Your task to perform on an android device: Search for 35 best books of all time Image 0: 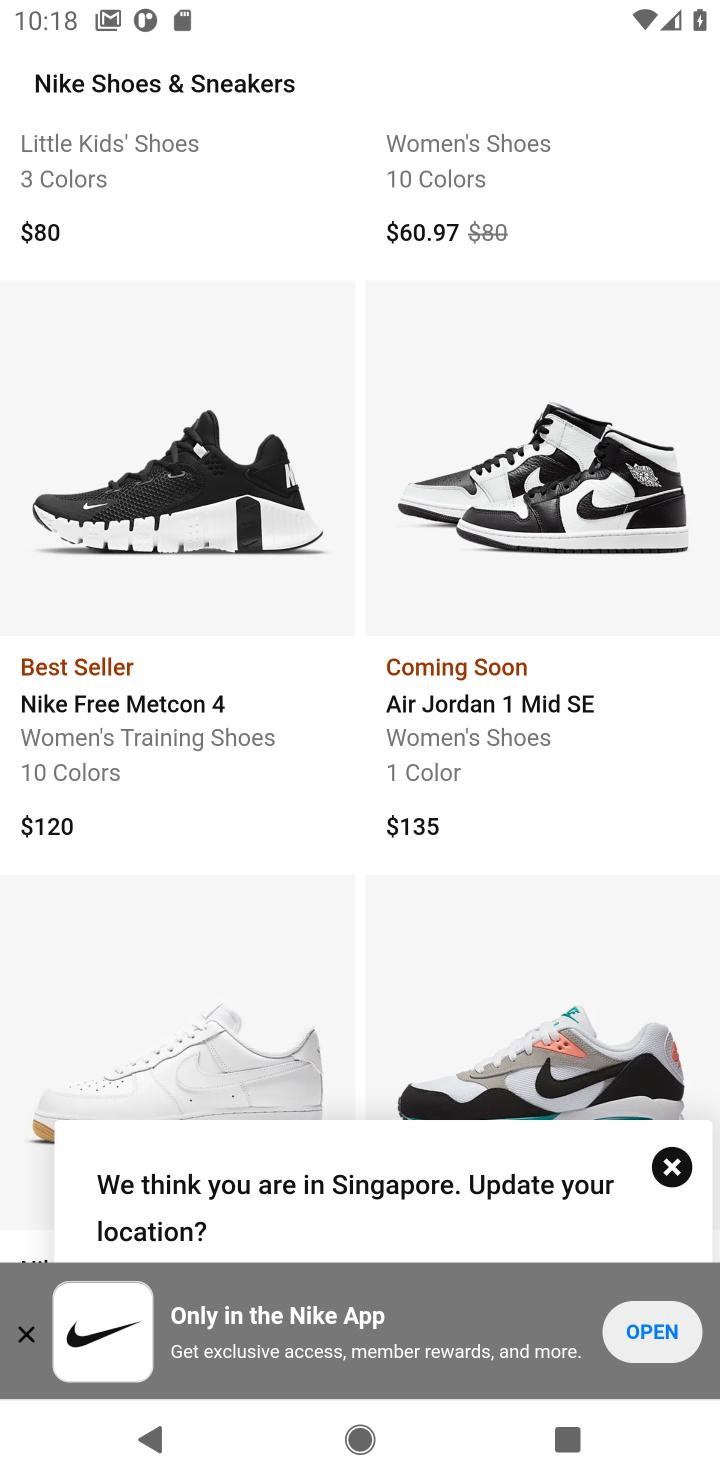
Step 0: press home button
Your task to perform on an android device: Search for 35 best books of all time Image 1: 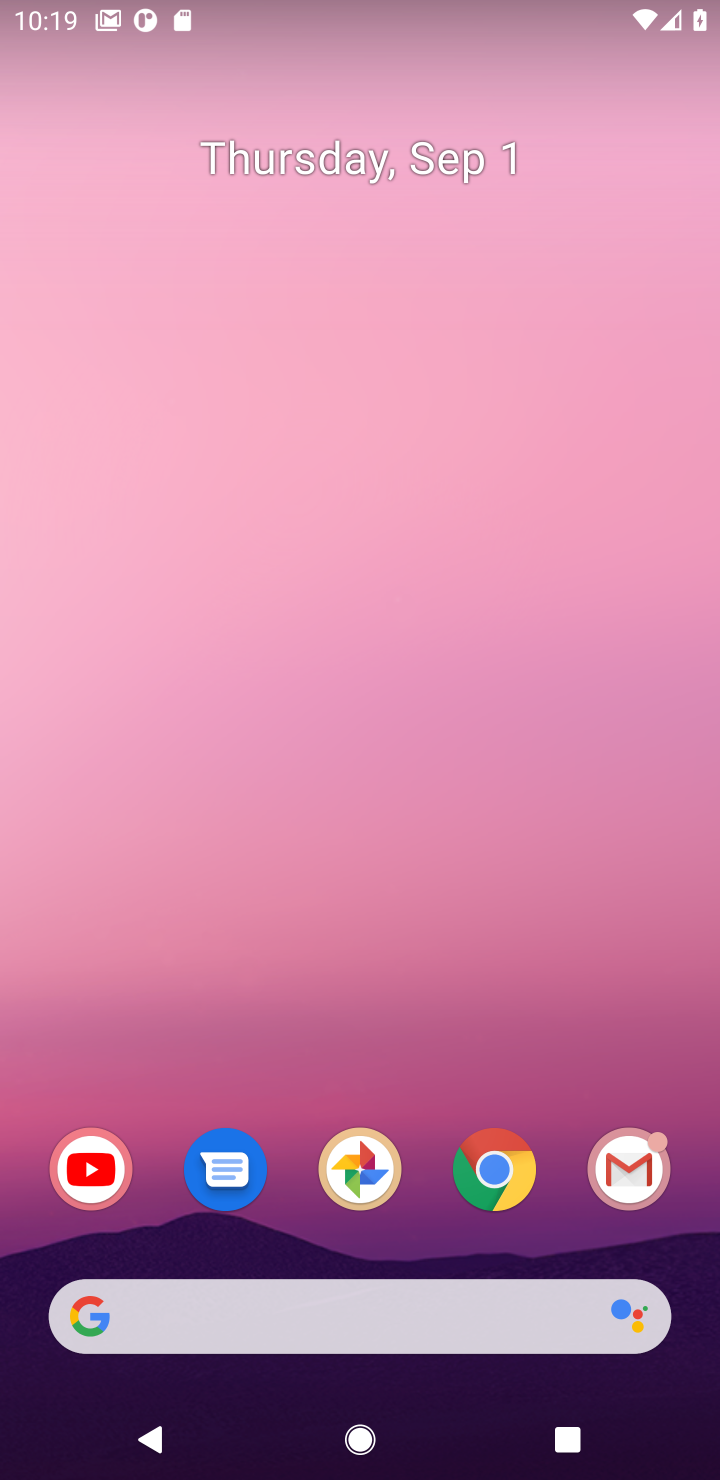
Step 1: drag from (442, 324) to (442, 60)
Your task to perform on an android device: Search for 35 best books of all time Image 2: 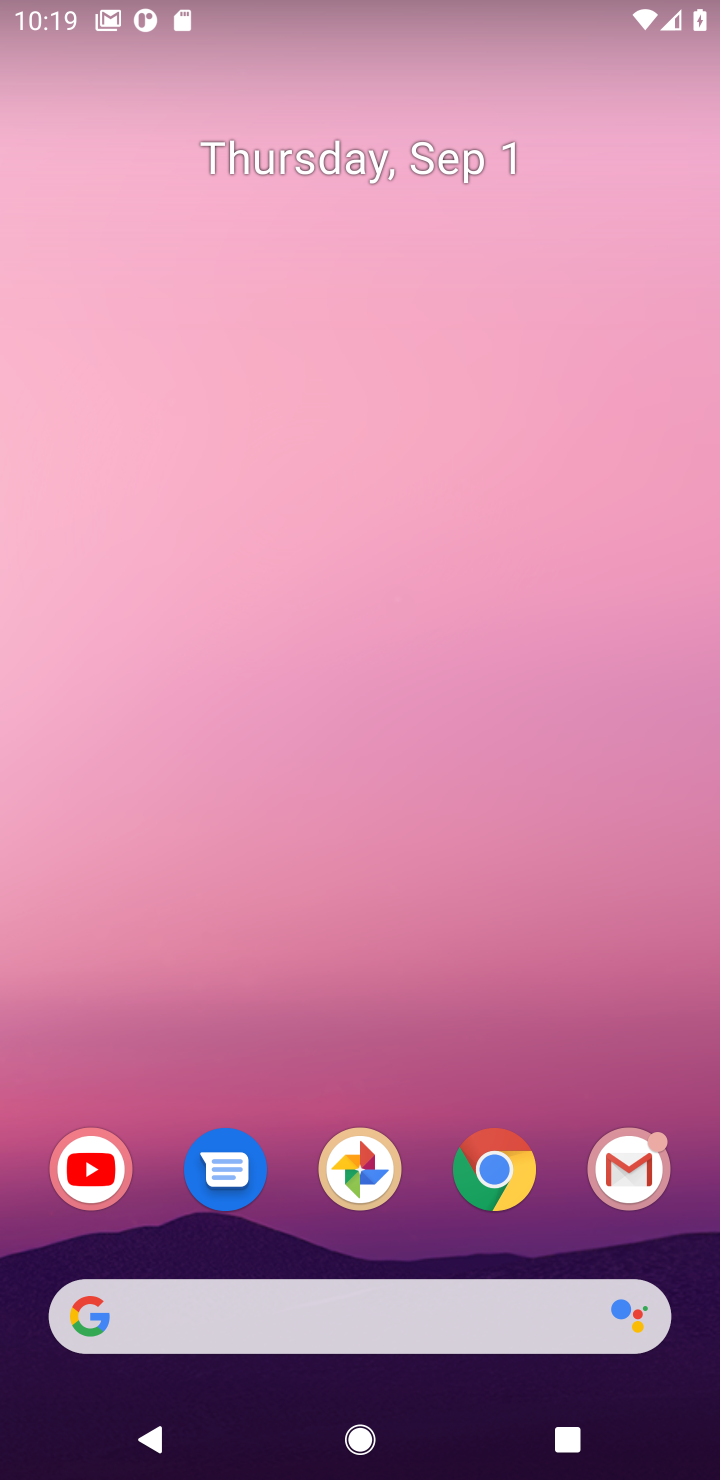
Step 2: drag from (424, 1216) to (443, 183)
Your task to perform on an android device: Search for 35 best books of all time Image 3: 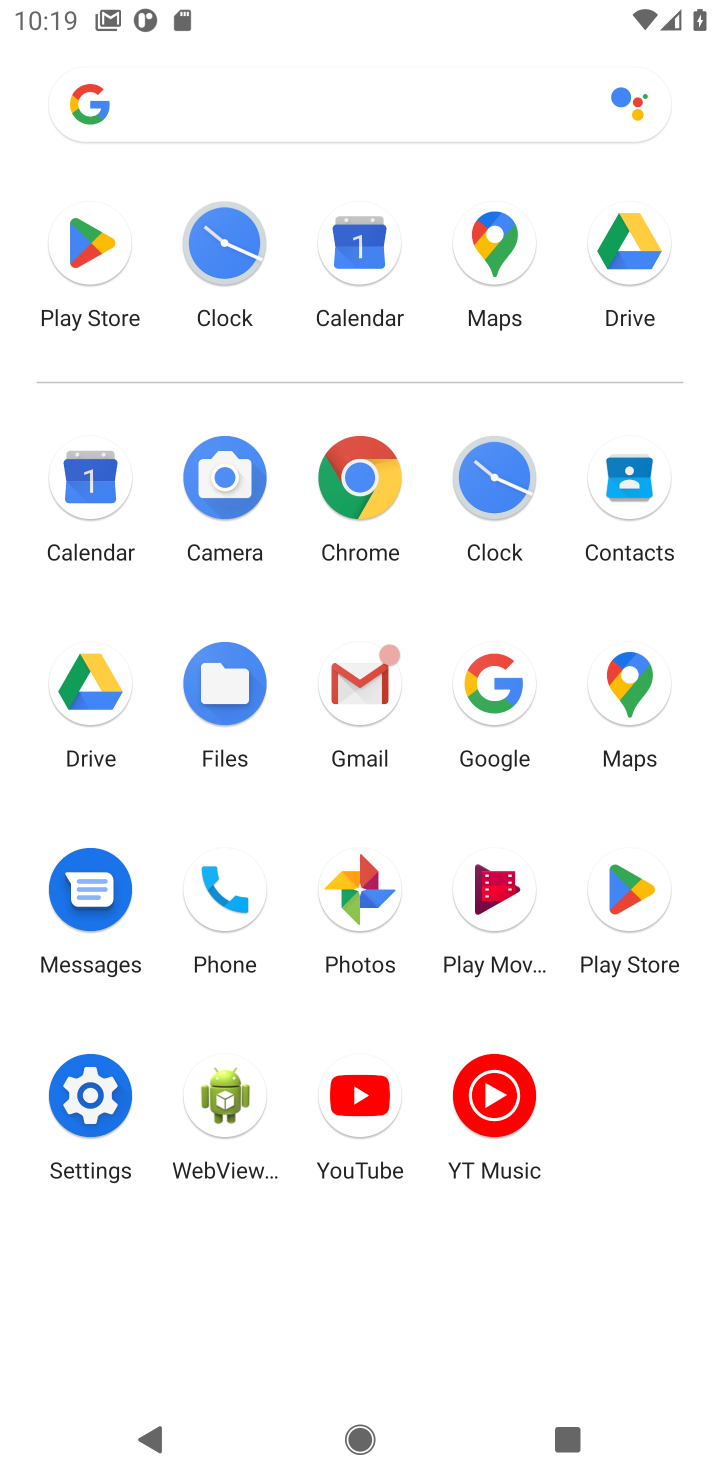
Step 3: click (340, 467)
Your task to perform on an android device: Search for 35 best books of all time Image 4: 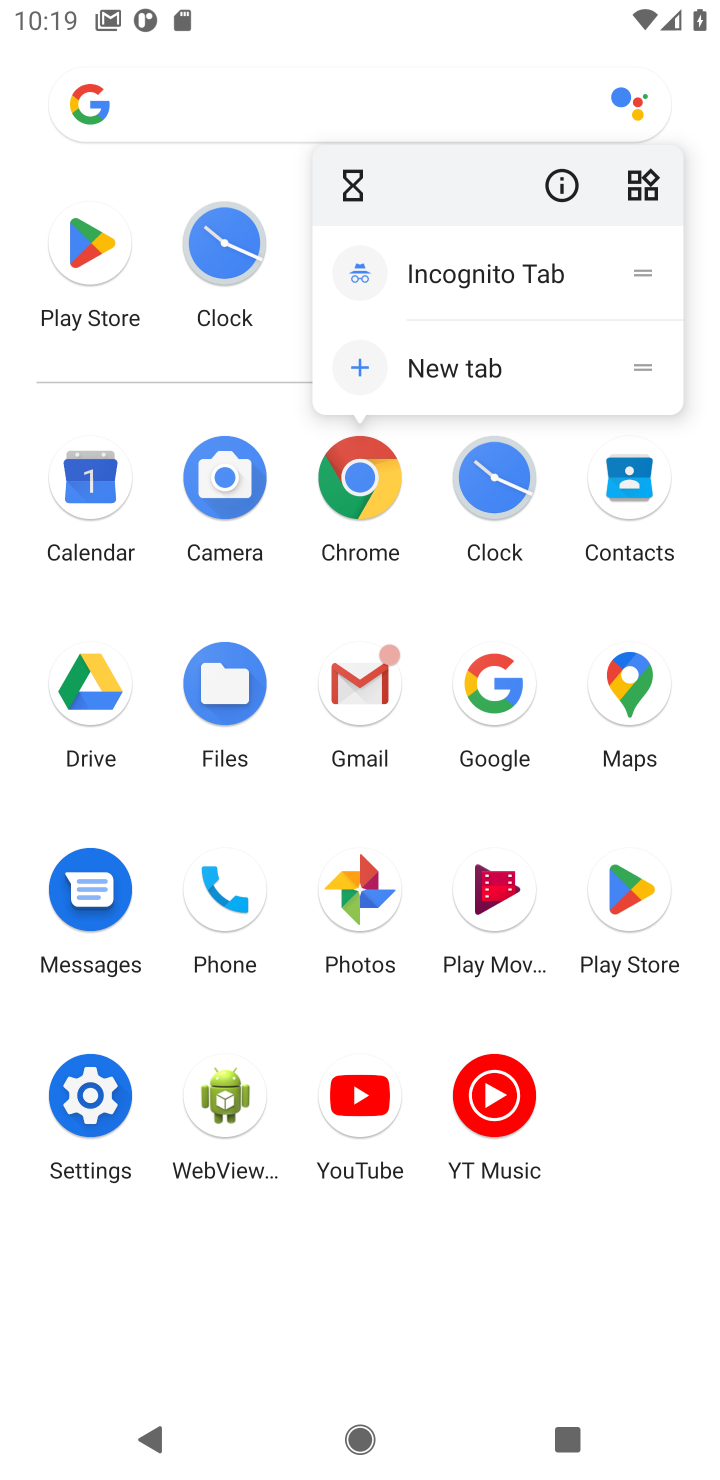
Step 4: click (369, 473)
Your task to perform on an android device: Search for 35 best books of all time Image 5: 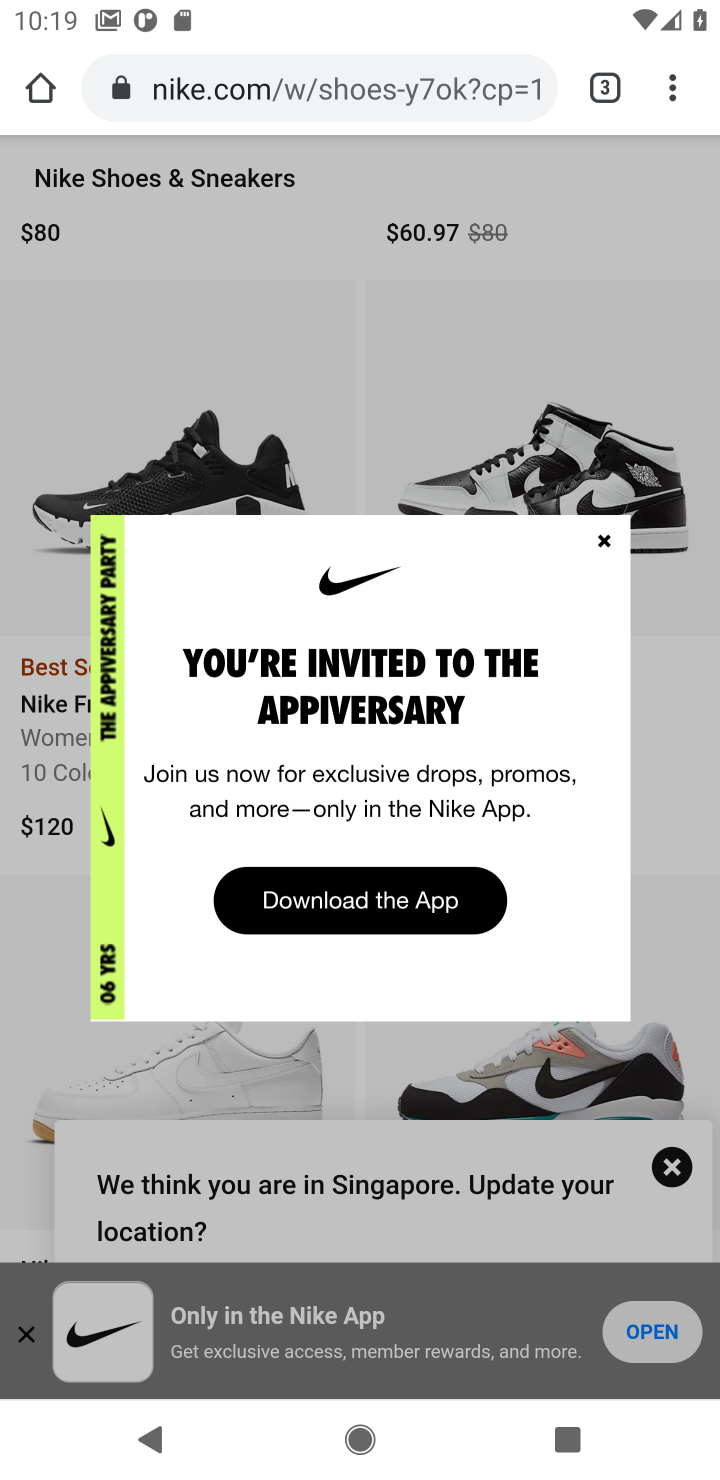
Step 5: click (296, 88)
Your task to perform on an android device: Search for 35 best books of all time Image 6: 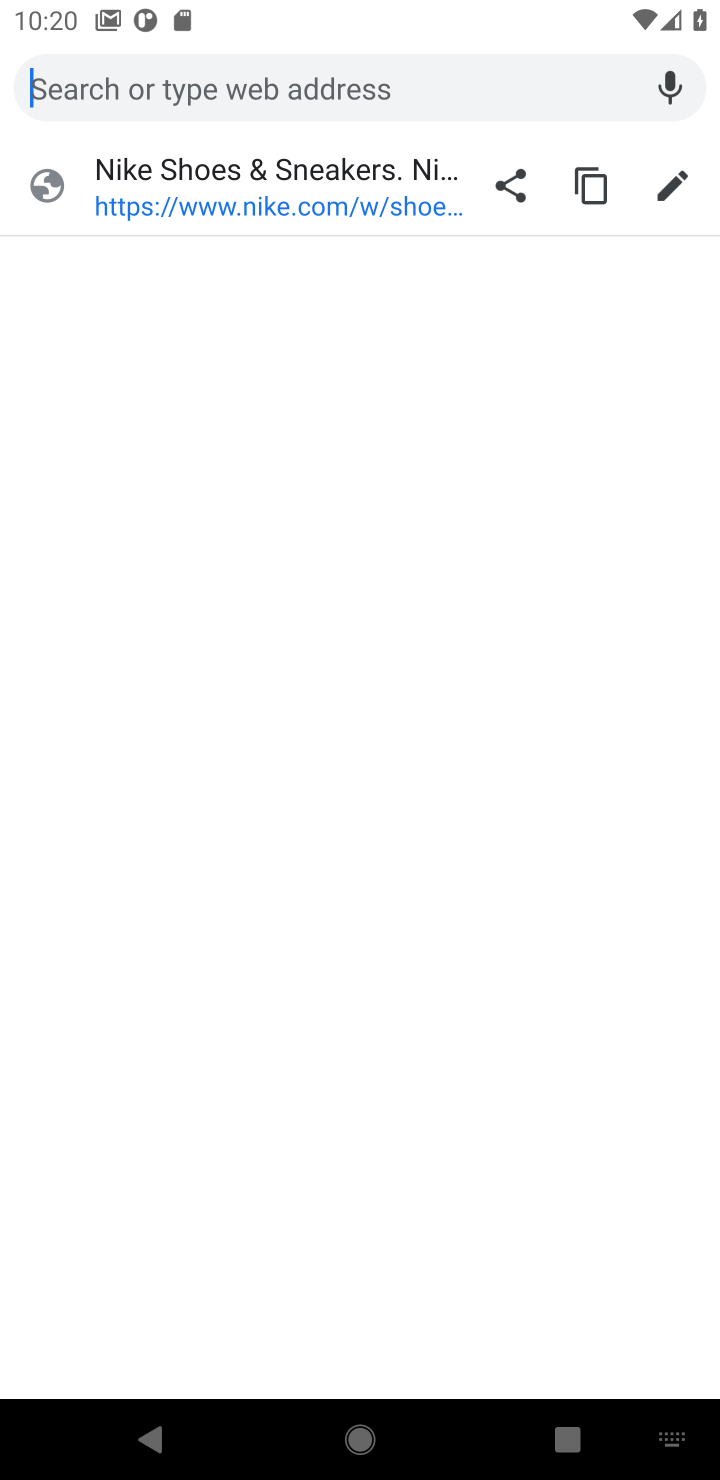
Step 6: click (308, 80)
Your task to perform on an android device: Search for 35 best books of all time Image 7: 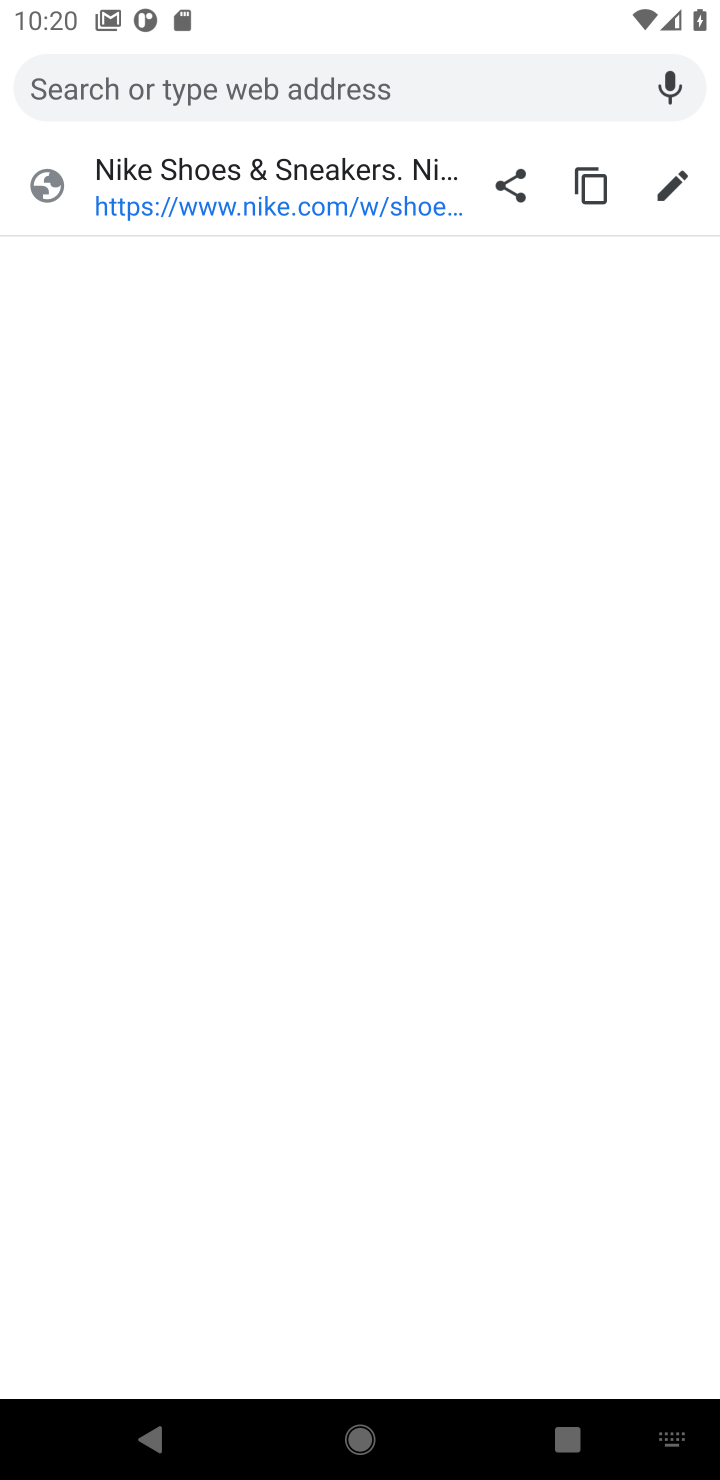
Step 7: type "35 best books of all time"
Your task to perform on an android device: Search for 35 best books of all time Image 8: 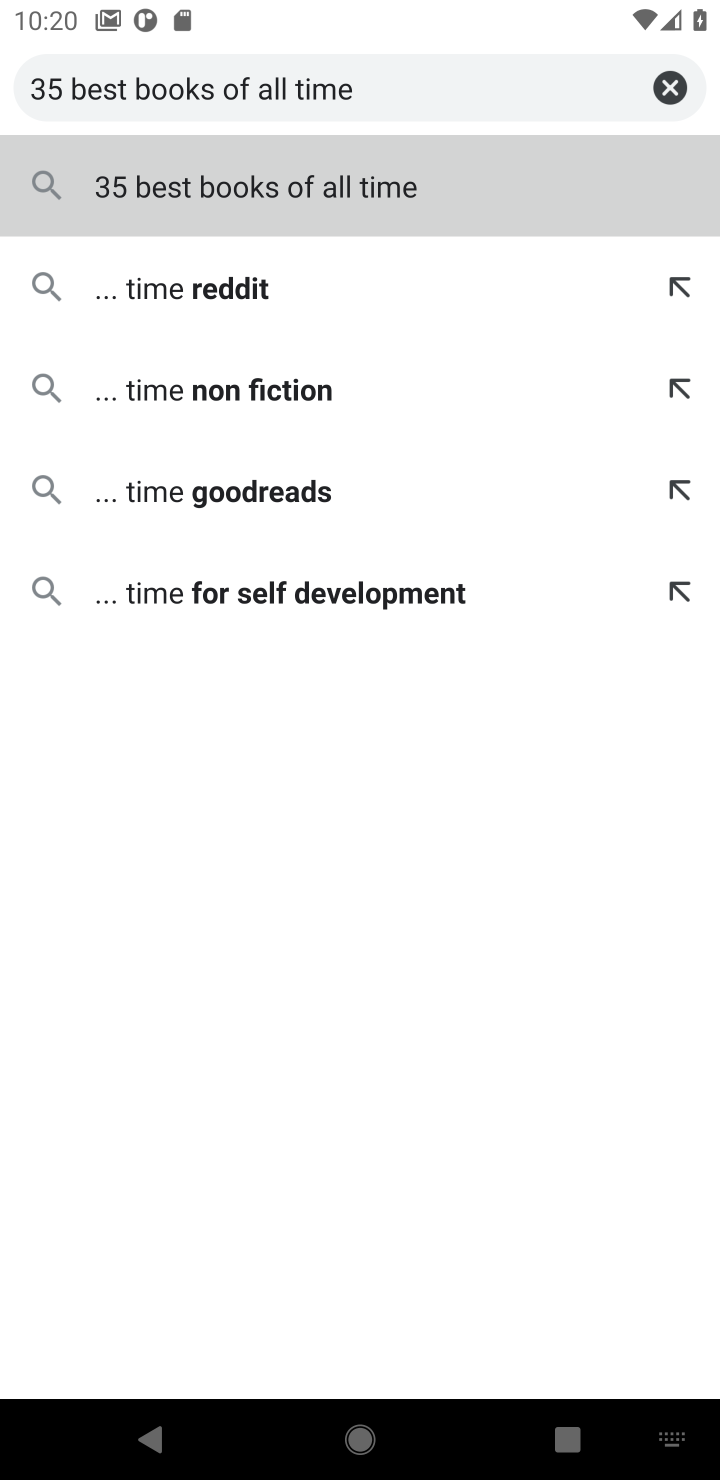
Step 8: click (332, 204)
Your task to perform on an android device: Search for 35 best books of all time Image 9: 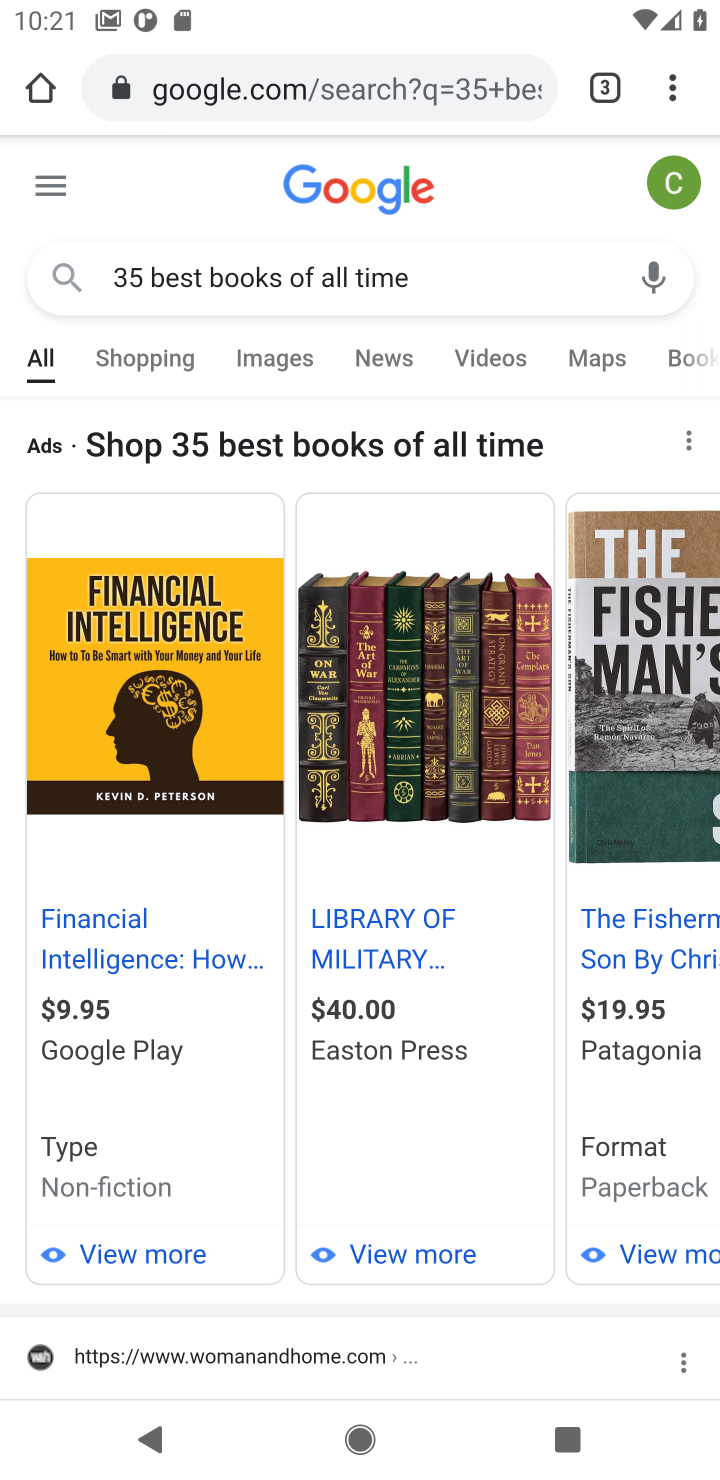
Step 9: drag from (279, 442) to (278, 260)
Your task to perform on an android device: Search for 35 best books of all time Image 10: 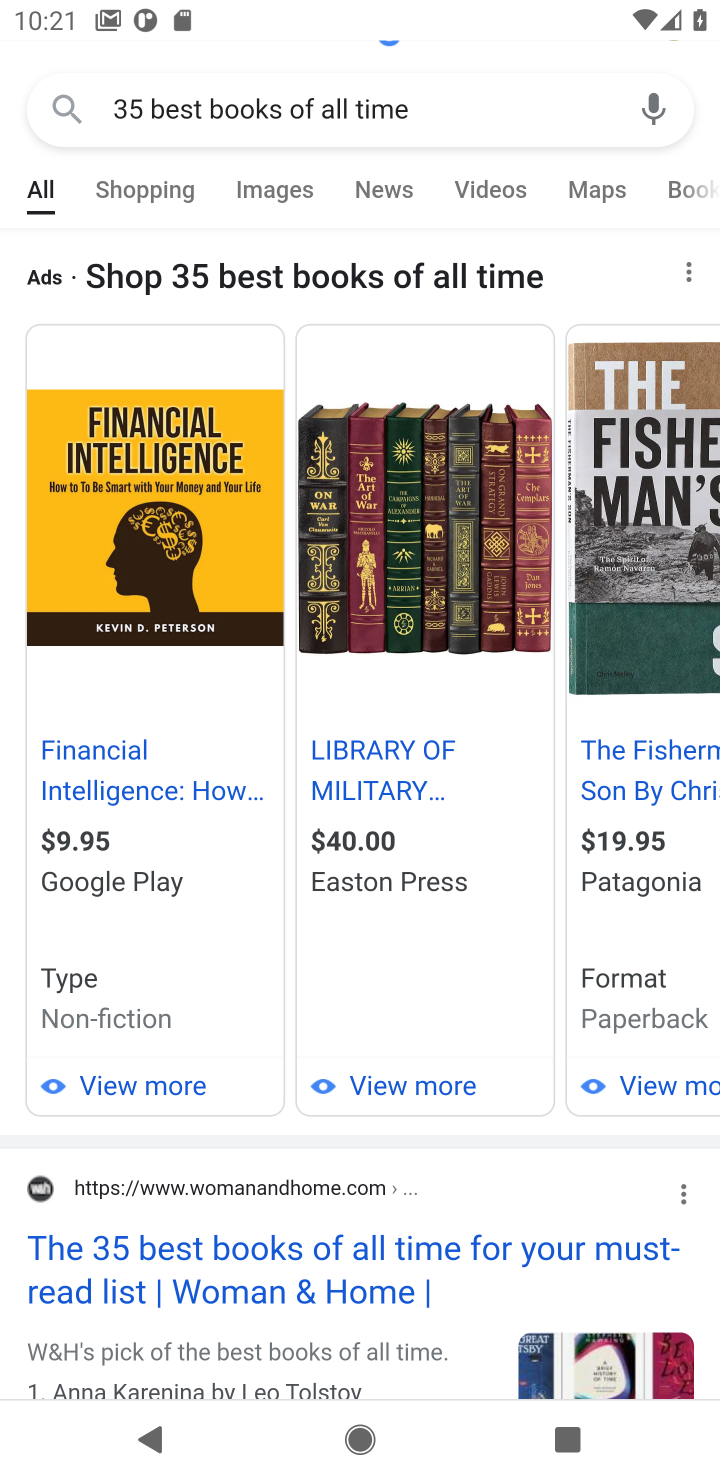
Step 10: click (384, 1266)
Your task to perform on an android device: Search for 35 best books of all time Image 11: 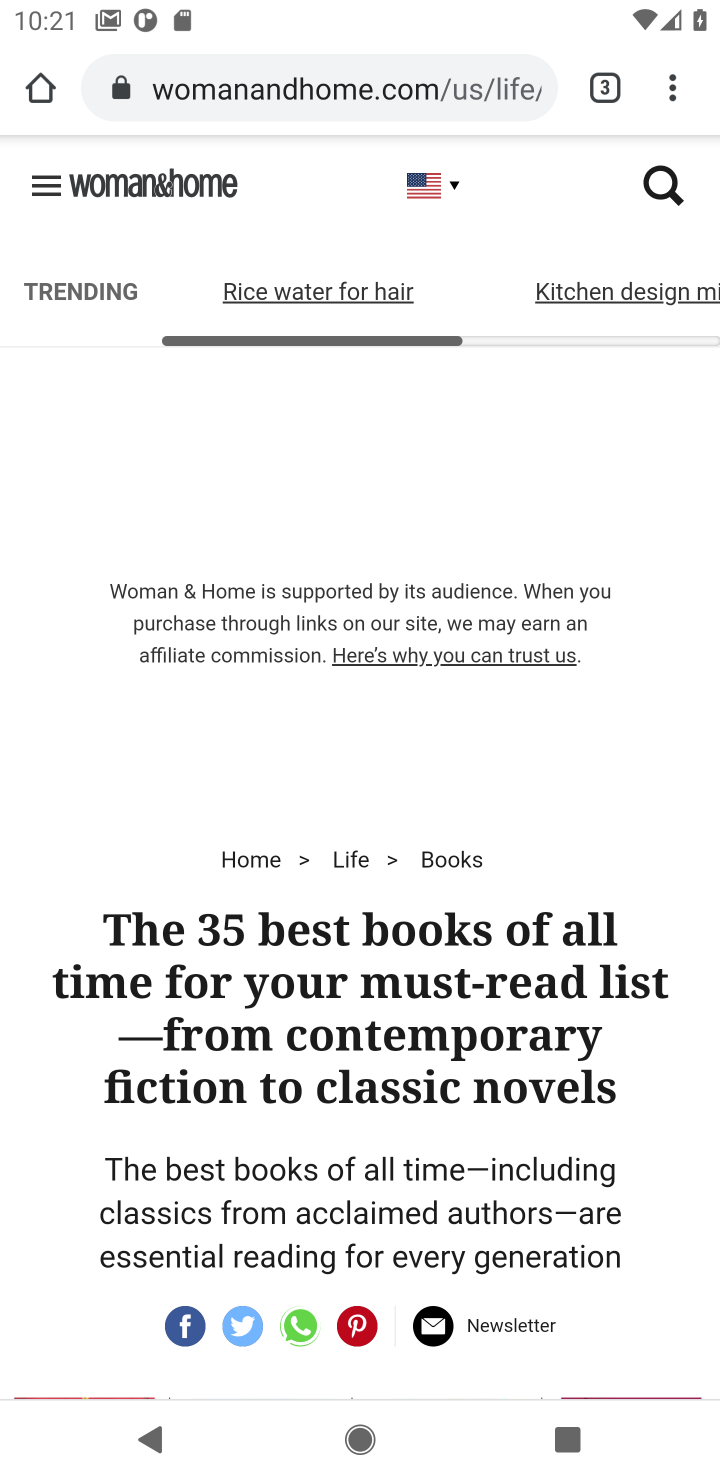
Step 11: drag from (502, 1236) to (454, 309)
Your task to perform on an android device: Search for 35 best books of all time Image 12: 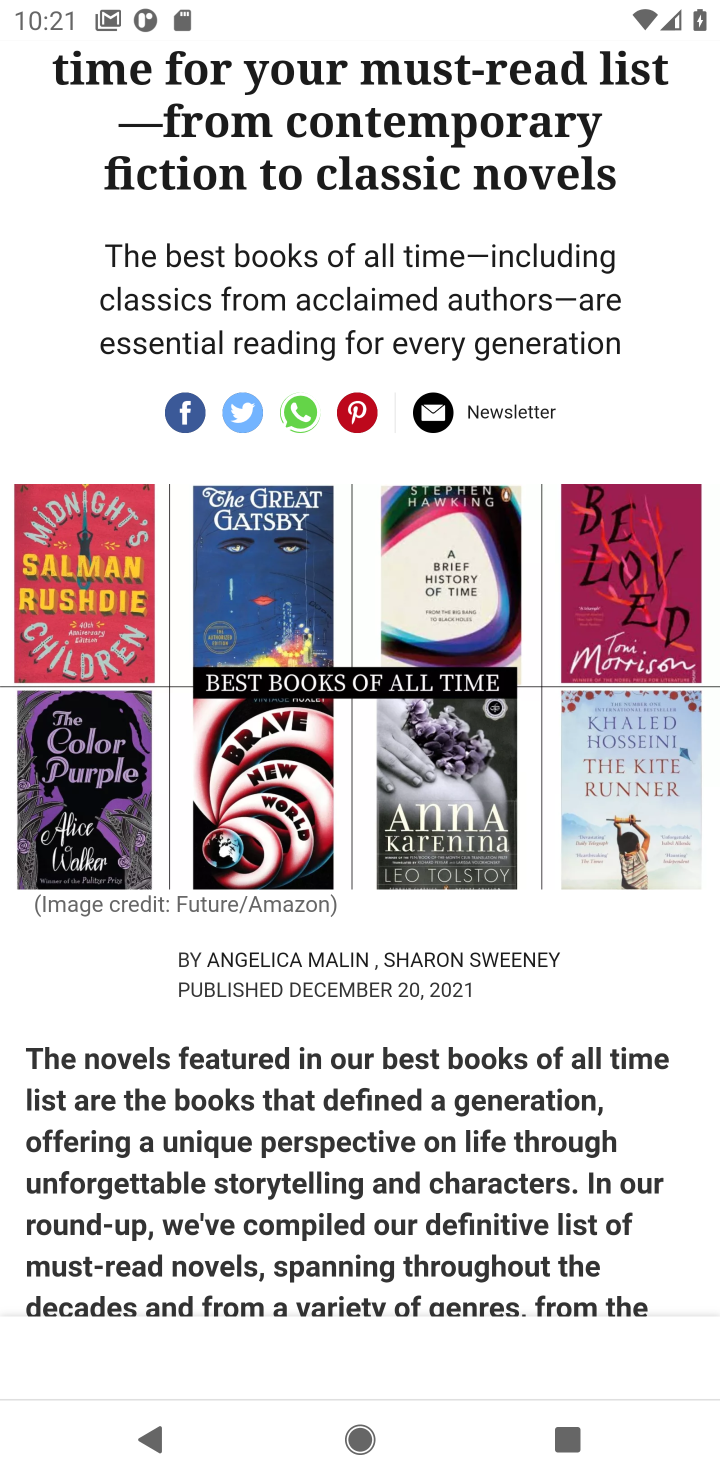
Step 12: drag from (392, 1165) to (408, 304)
Your task to perform on an android device: Search for 35 best books of all time Image 13: 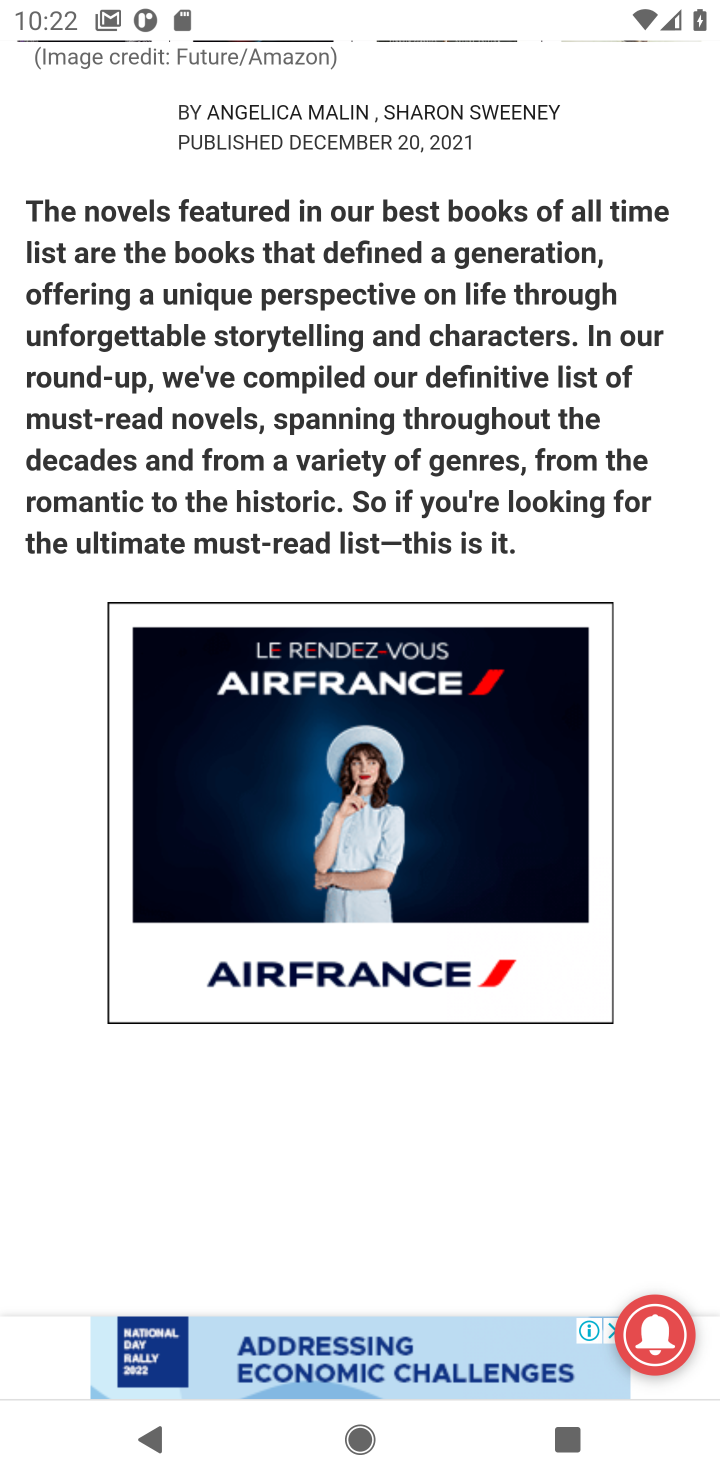
Step 13: drag from (147, 1131) to (194, 64)
Your task to perform on an android device: Search for 35 best books of all time Image 14: 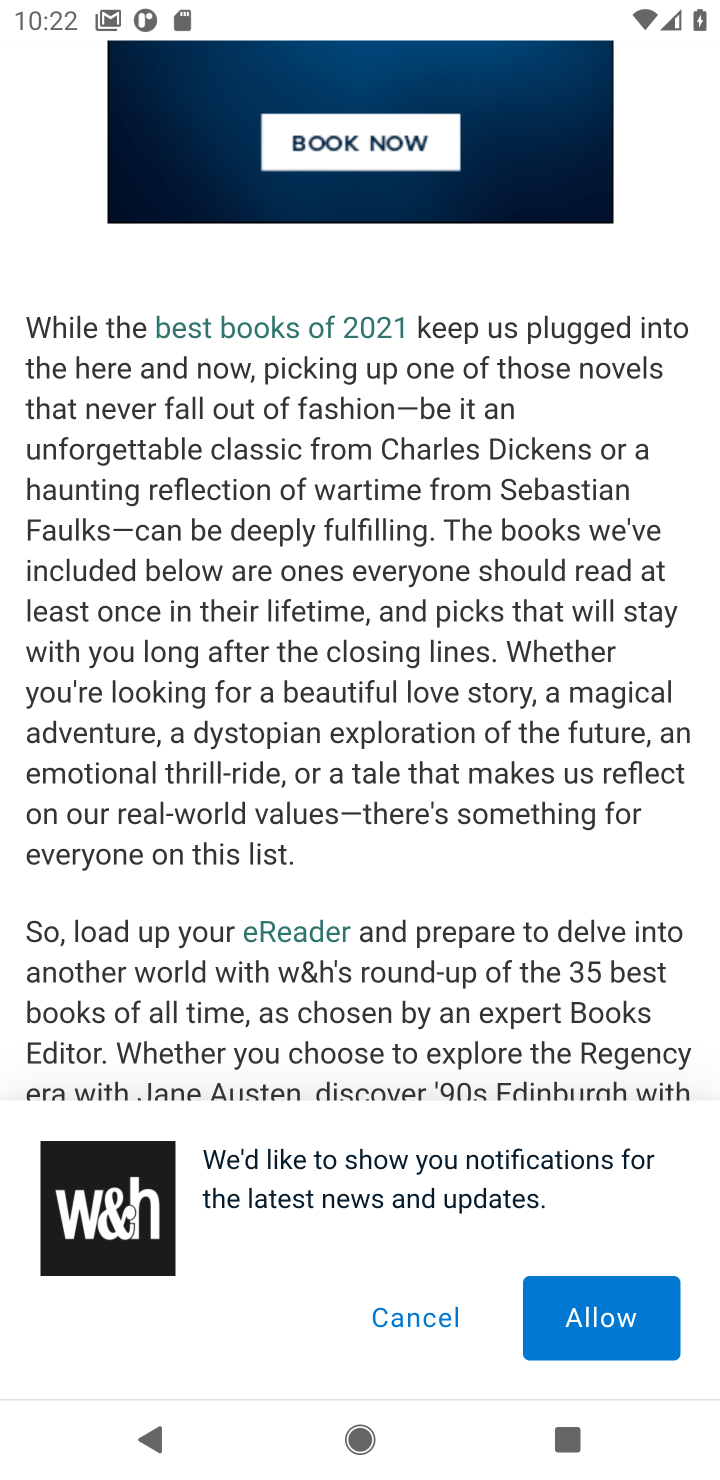
Step 14: click (549, 1311)
Your task to perform on an android device: Search for 35 best books of all time Image 15: 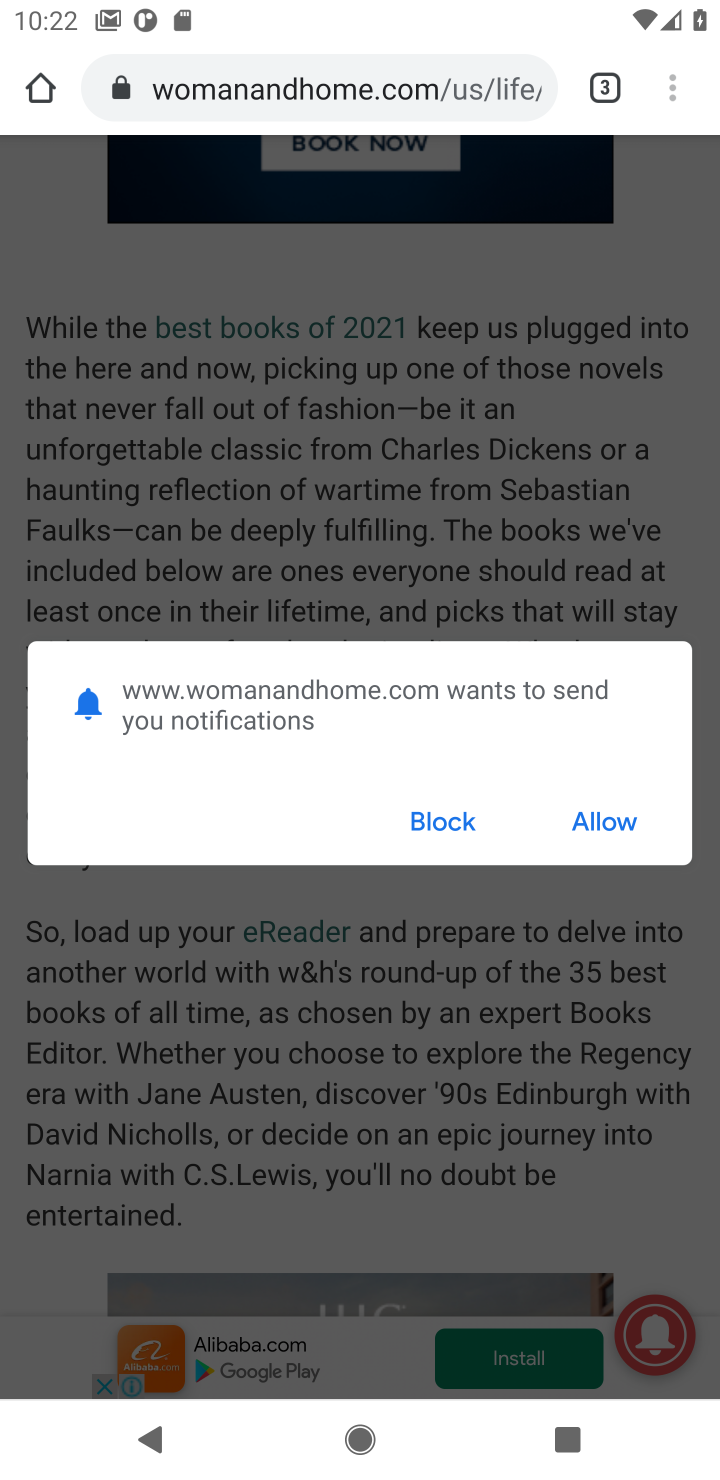
Step 15: click (601, 812)
Your task to perform on an android device: Search for 35 best books of all time Image 16: 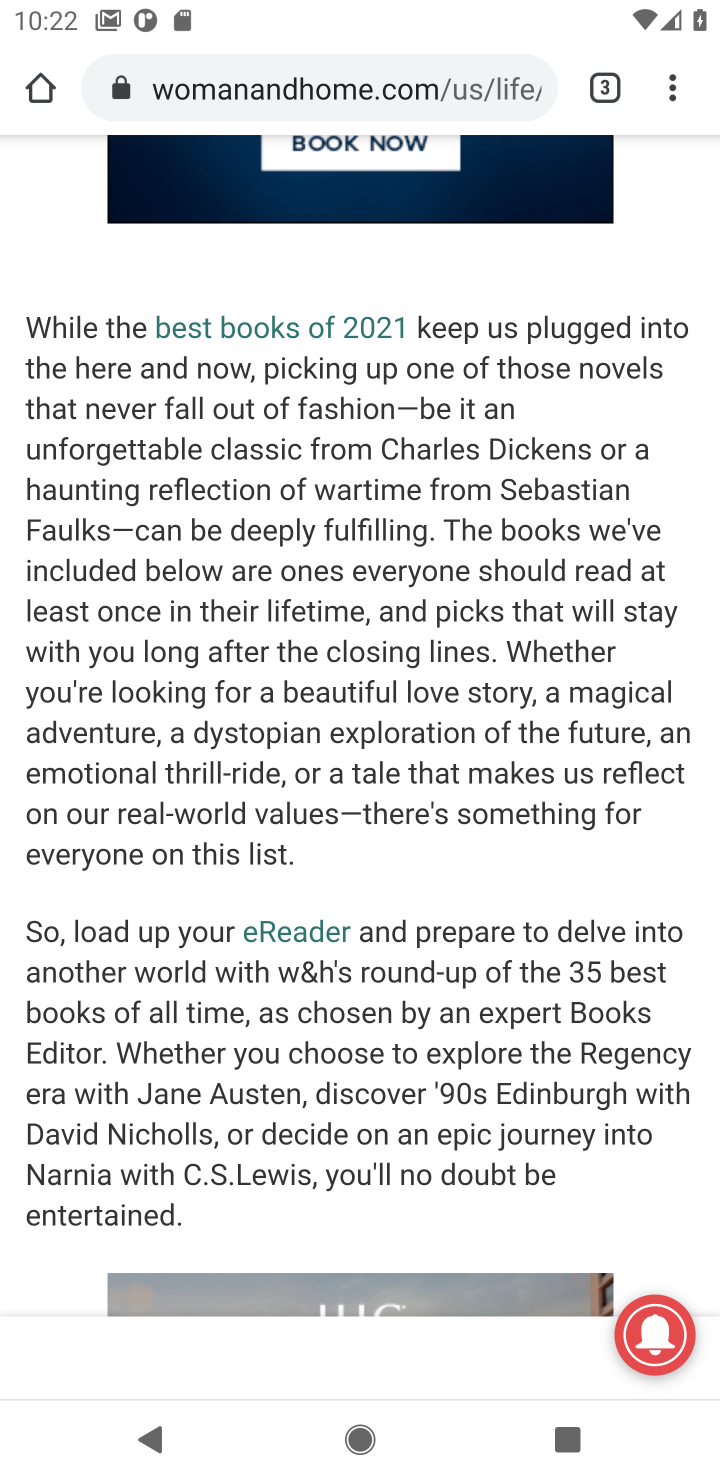
Step 16: drag from (384, 1042) to (391, 179)
Your task to perform on an android device: Search for 35 best books of all time Image 17: 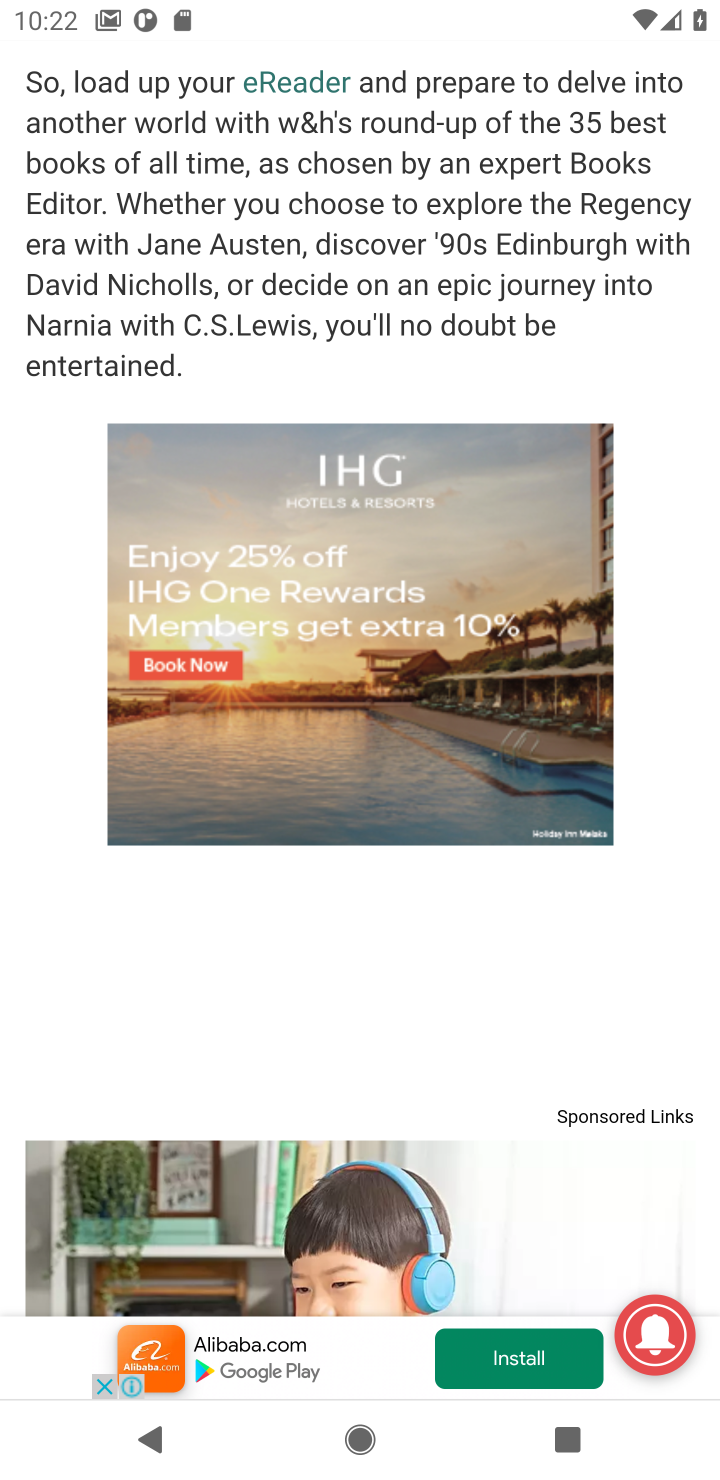
Step 17: drag from (426, 1101) to (437, 353)
Your task to perform on an android device: Search for 35 best books of all time Image 18: 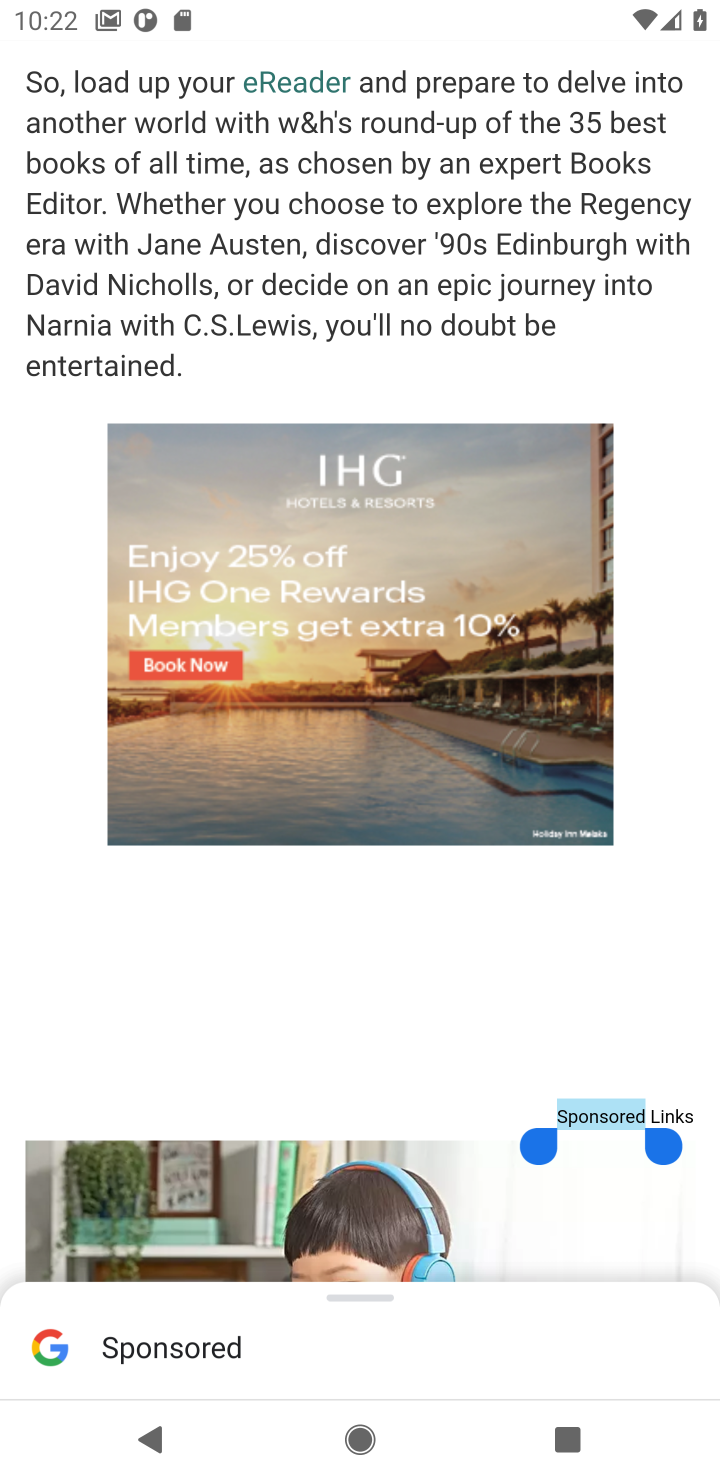
Step 18: drag from (276, 988) to (343, 211)
Your task to perform on an android device: Search for 35 best books of all time Image 19: 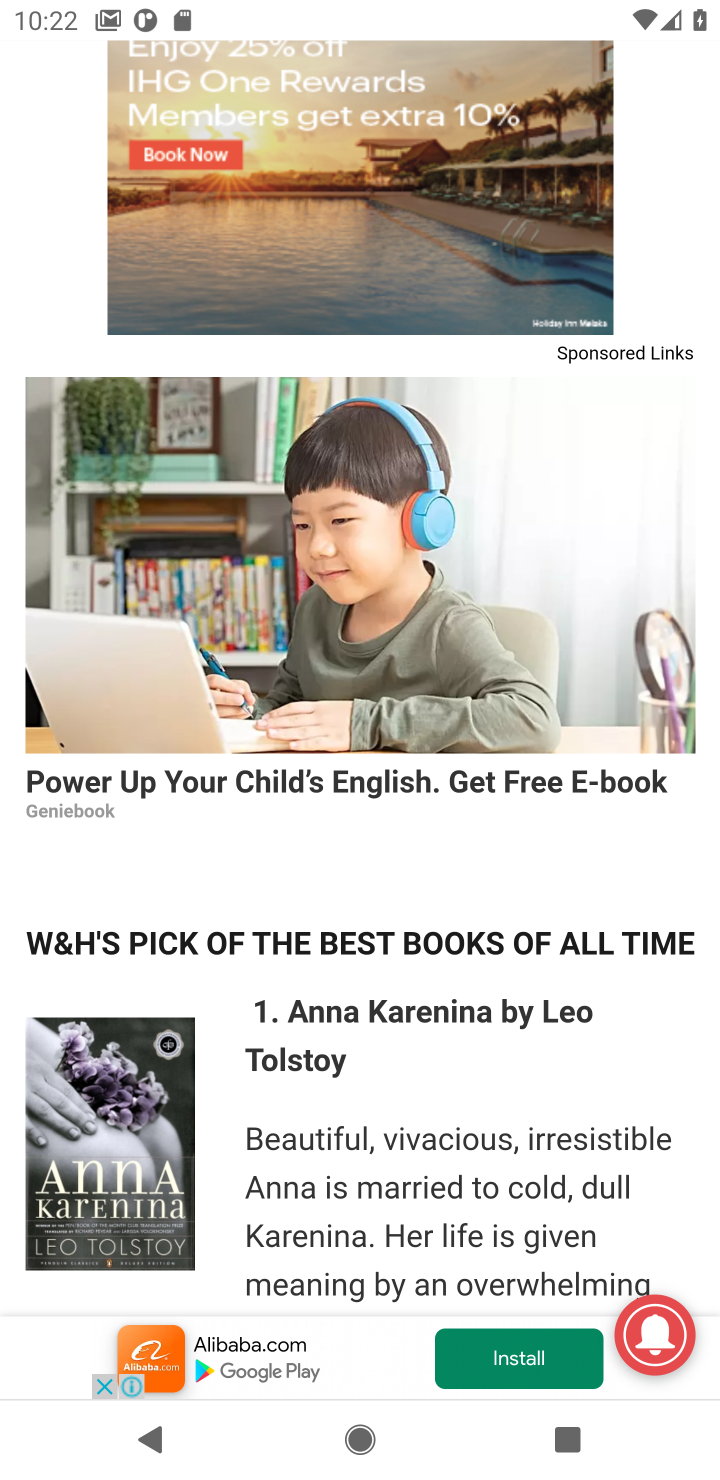
Step 19: drag from (363, 631) to (391, 170)
Your task to perform on an android device: Search for 35 best books of all time Image 20: 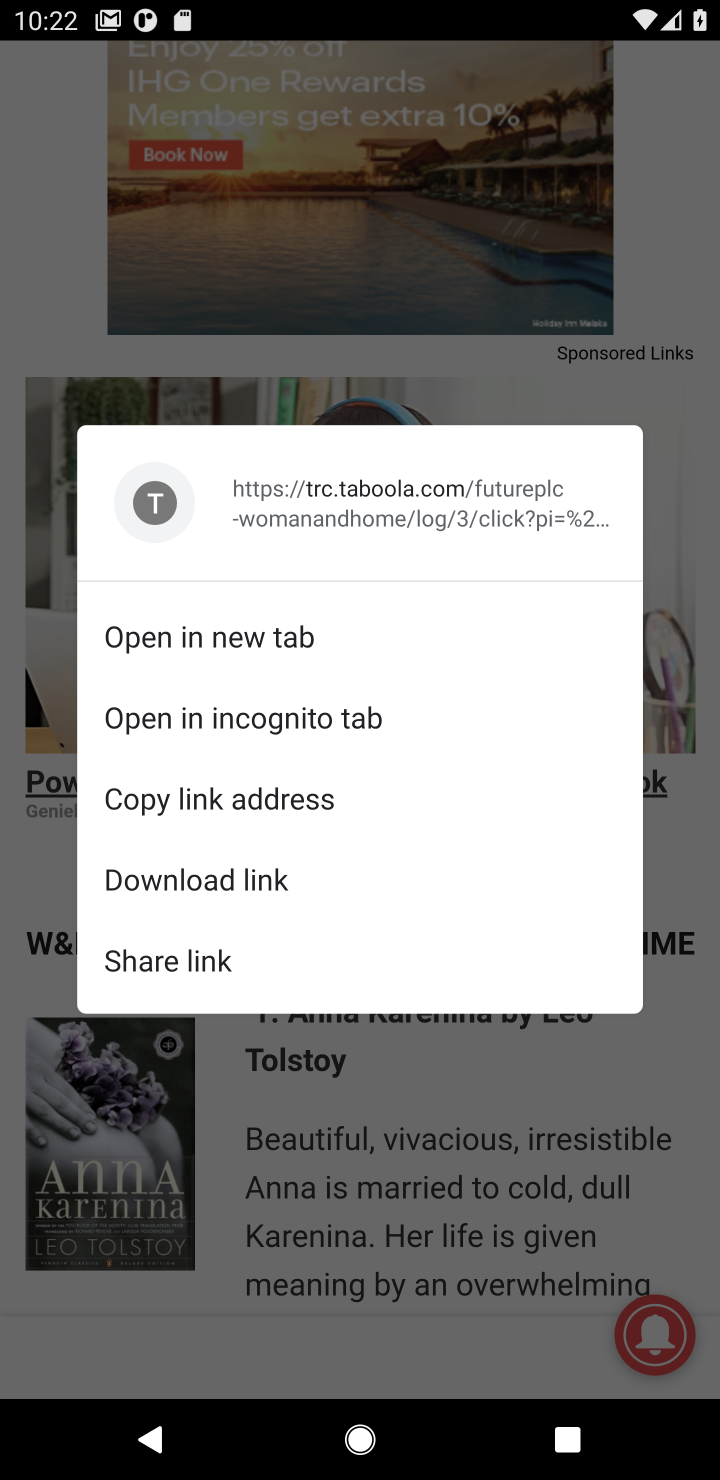
Step 20: click (387, 1181)
Your task to perform on an android device: Search for 35 best books of all time Image 21: 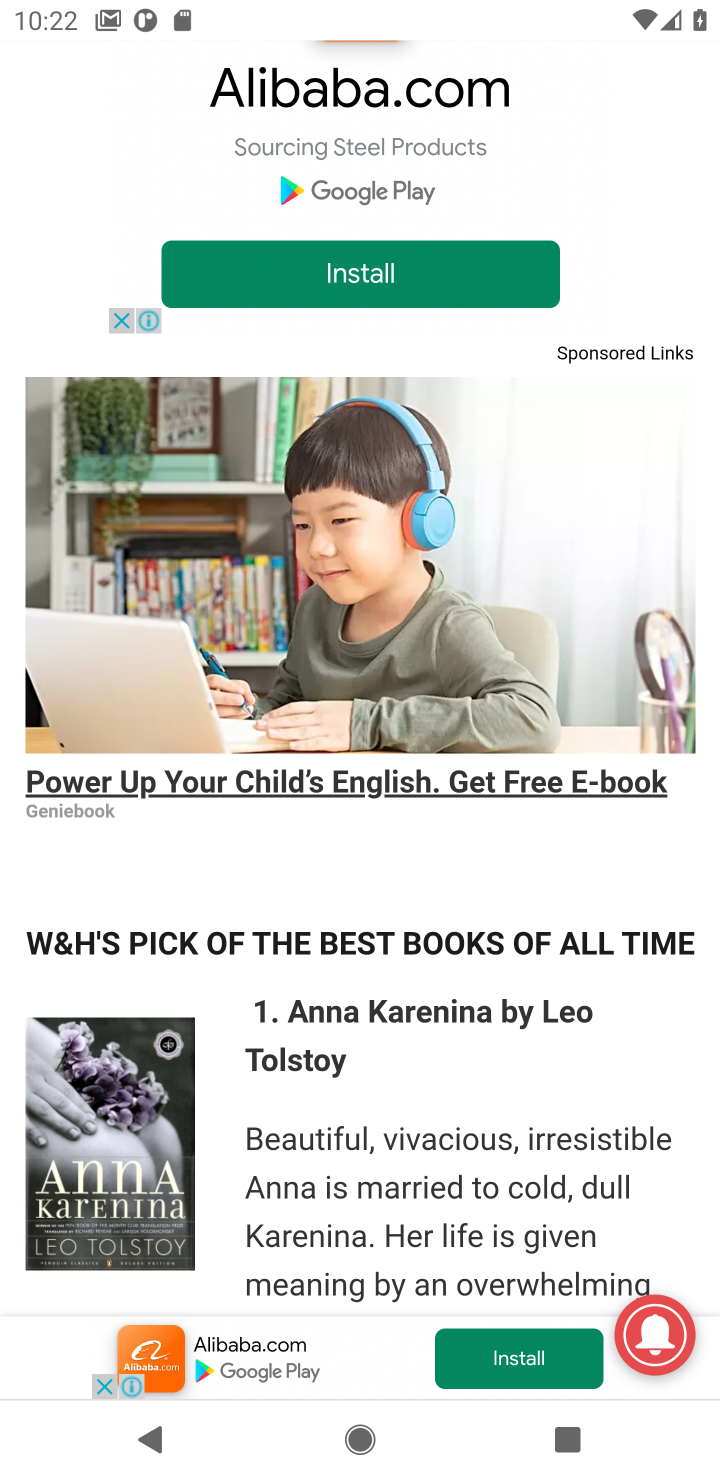
Step 21: task complete